Your task to perform on an android device: clear all cookies in the chrome app Image 0: 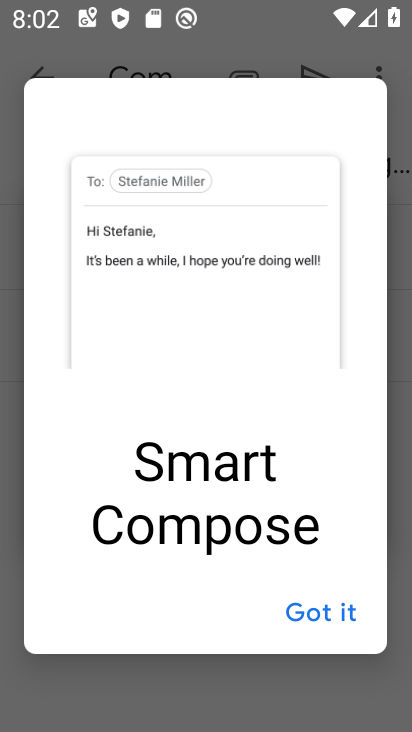
Step 0: press home button
Your task to perform on an android device: clear all cookies in the chrome app Image 1: 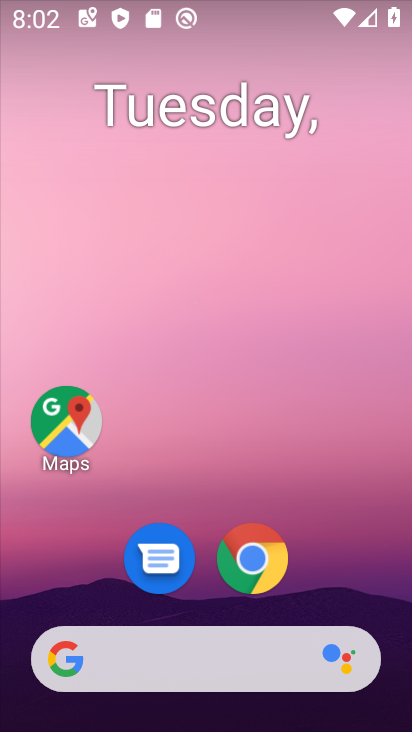
Step 1: click (234, 568)
Your task to perform on an android device: clear all cookies in the chrome app Image 2: 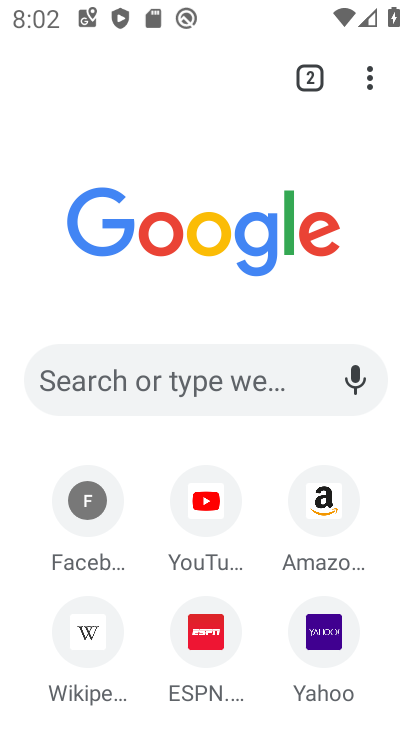
Step 2: click (374, 68)
Your task to perform on an android device: clear all cookies in the chrome app Image 3: 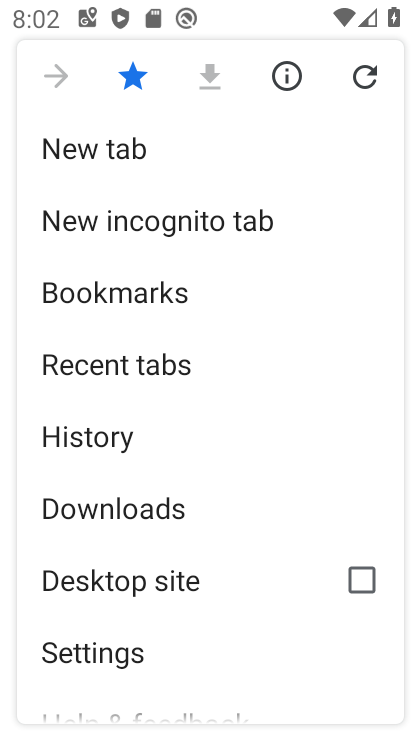
Step 3: drag from (166, 526) to (141, 379)
Your task to perform on an android device: clear all cookies in the chrome app Image 4: 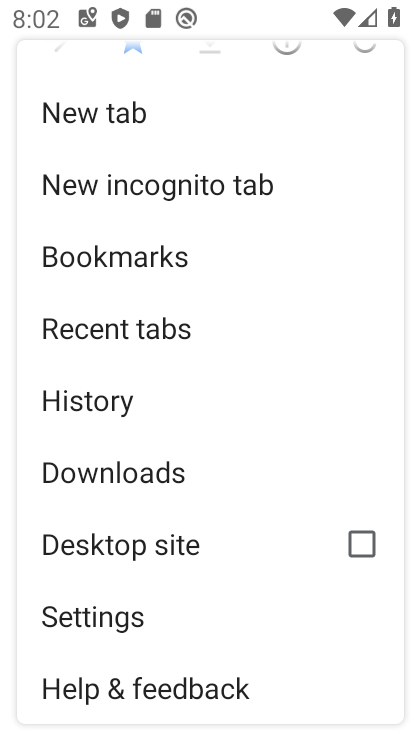
Step 4: click (102, 416)
Your task to perform on an android device: clear all cookies in the chrome app Image 5: 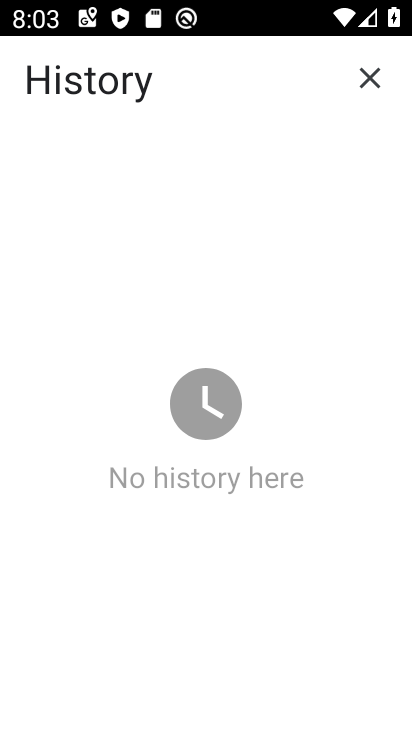
Step 5: task complete